Your task to perform on an android device: check android version Image 0: 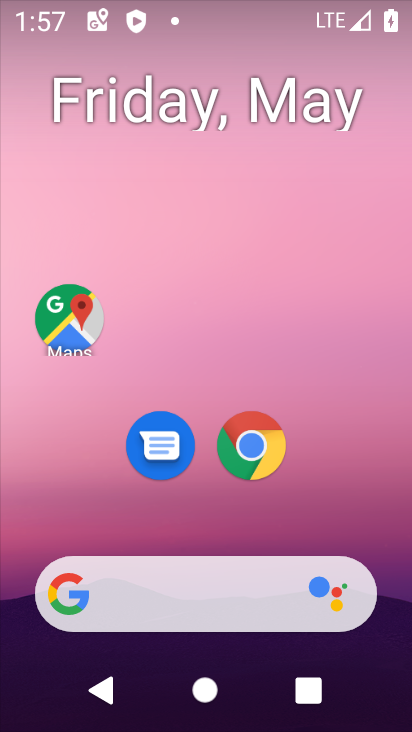
Step 0: press home button
Your task to perform on an android device: check android version Image 1: 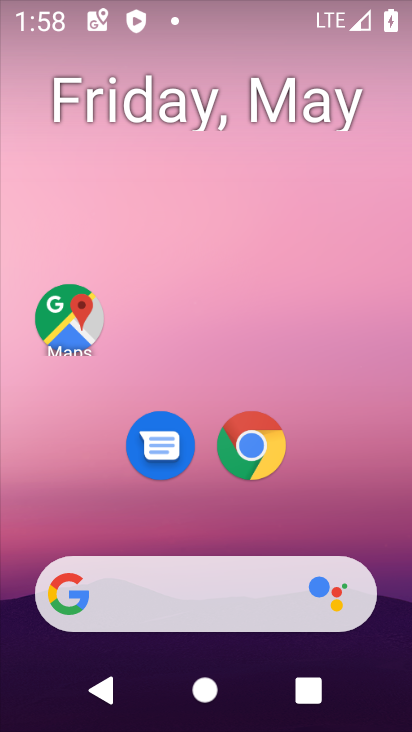
Step 1: drag from (208, 530) to (210, 42)
Your task to perform on an android device: check android version Image 2: 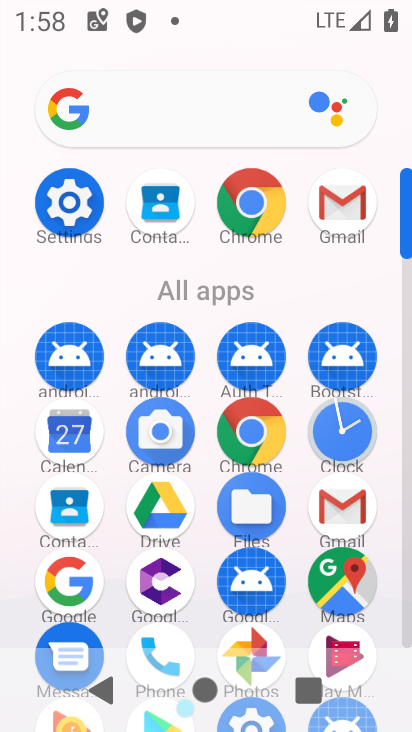
Step 2: click (64, 194)
Your task to perform on an android device: check android version Image 3: 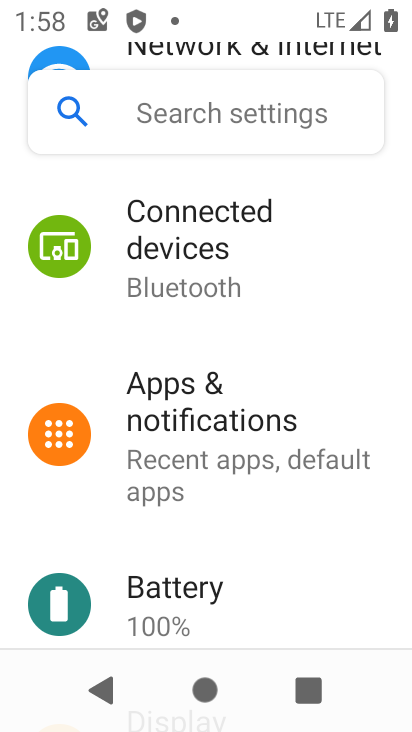
Step 3: drag from (254, 613) to (229, 8)
Your task to perform on an android device: check android version Image 4: 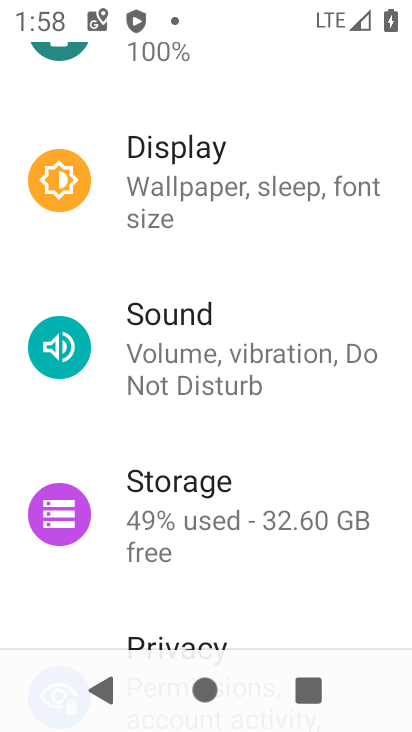
Step 4: drag from (228, 602) to (243, 23)
Your task to perform on an android device: check android version Image 5: 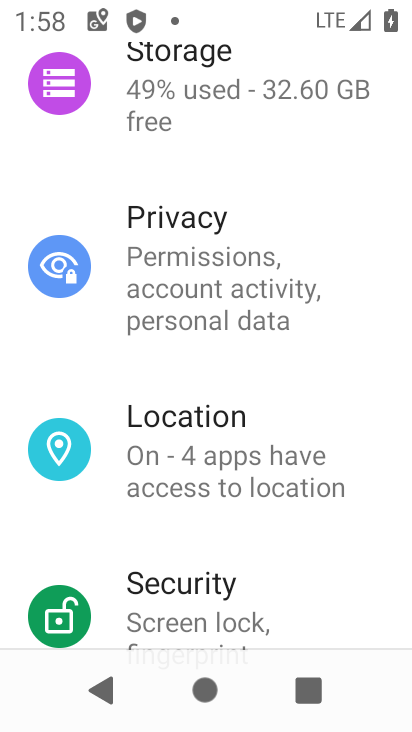
Step 5: drag from (264, 619) to (278, 232)
Your task to perform on an android device: check android version Image 6: 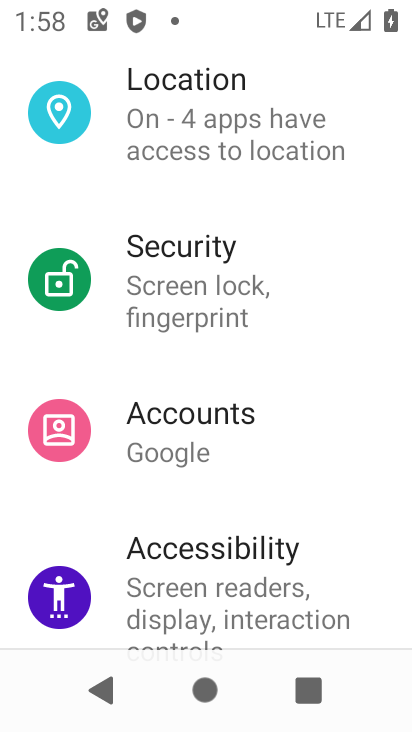
Step 6: drag from (239, 572) to (293, 141)
Your task to perform on an android device: check android version Image 7: 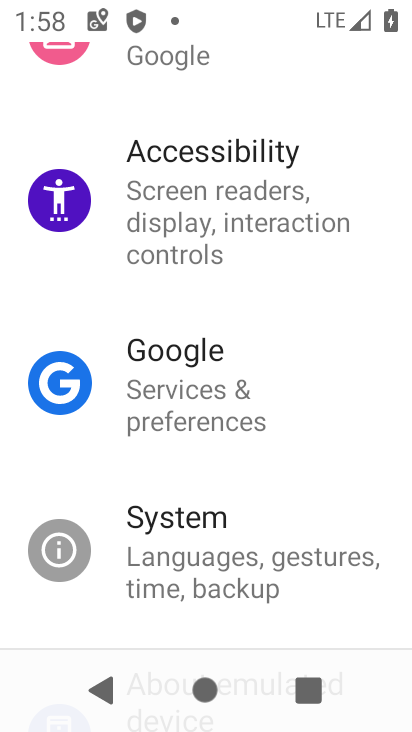
Step 7: drag from (243, 581) to (267, 112)
Your task to perform on an android device: check android version Image 8: 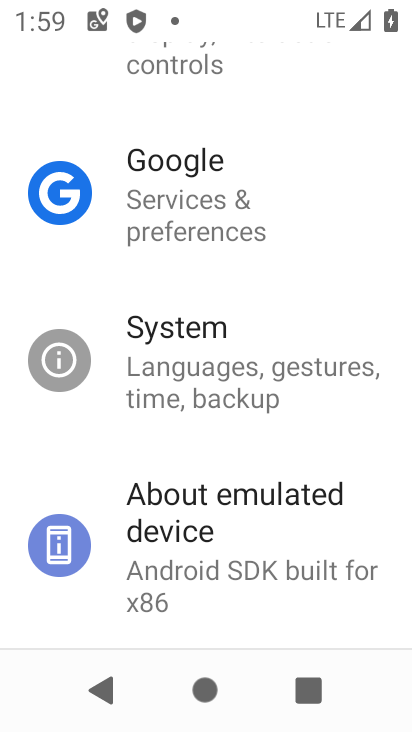
Step 8: click (200, 558)
Your task to perform on an android device: check android version Image 9: 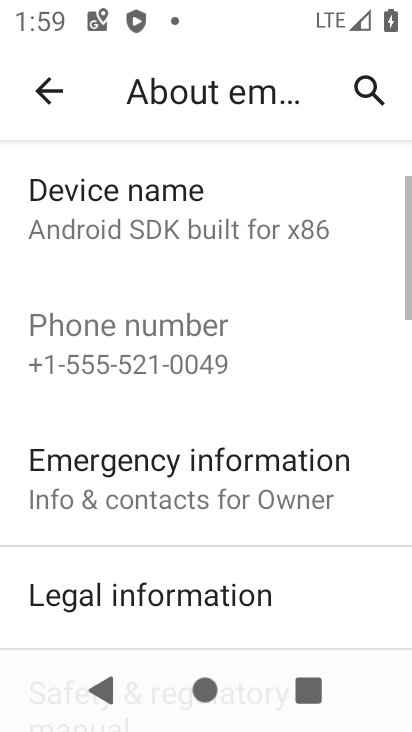
Step 9: drag from (251, 551) to (265, 110)
Your task to perform on an android device: check android version Image 10: 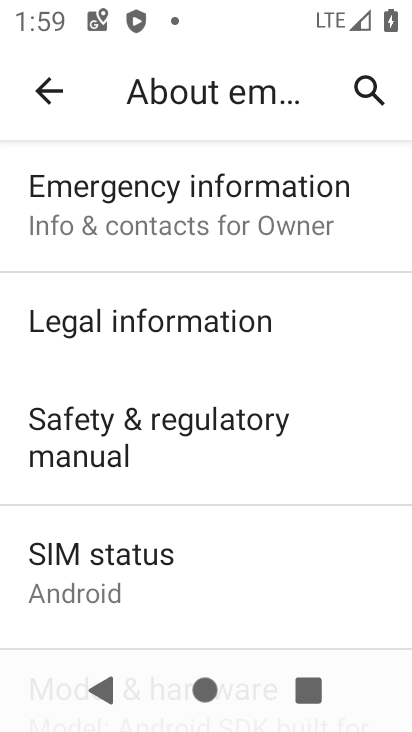
Step 10: drag from (231, 571) to (315, 187)
Your task to perform on an android device: check android version Image 11: 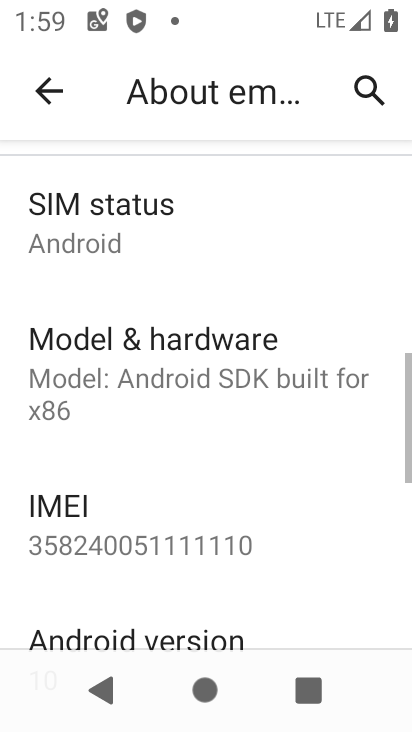
Step 11: drag from (136, 579) to (159, 206)
Your task to perform on an android device: check android version Image 12: 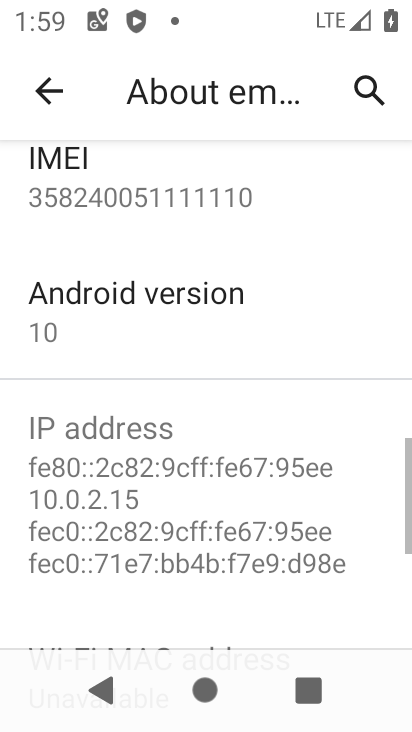
Step 12: click (92, 314)
Your task to perform on an android device: check android version Image 13: 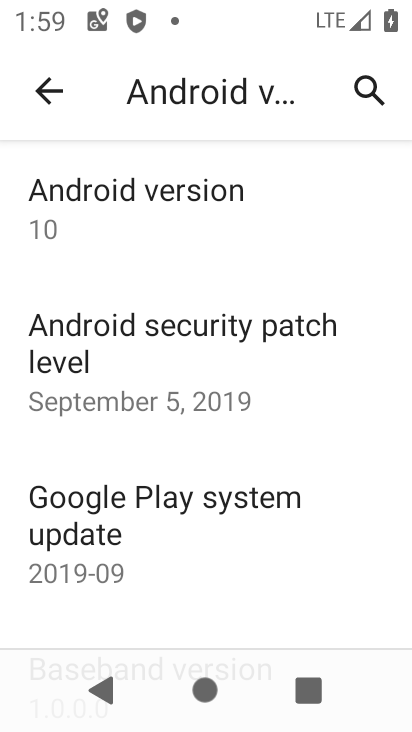
Step 13: task complete